Your task to perform on an android device: Go to Google Image 0: 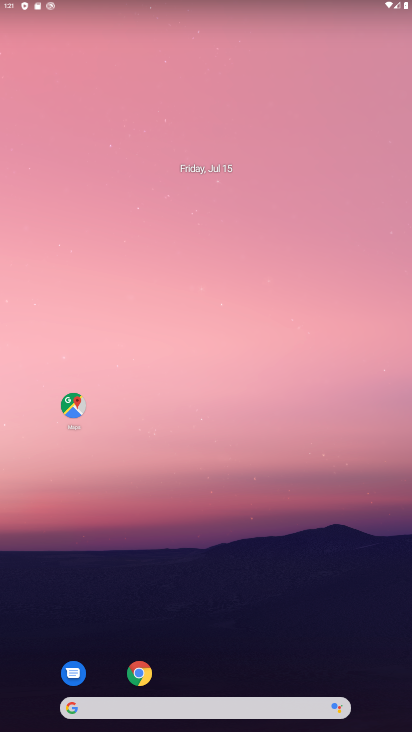
Step 0: drag from (265, 675) to (261, 182)
Your task to perform on an android device: Go to Google Image 1: 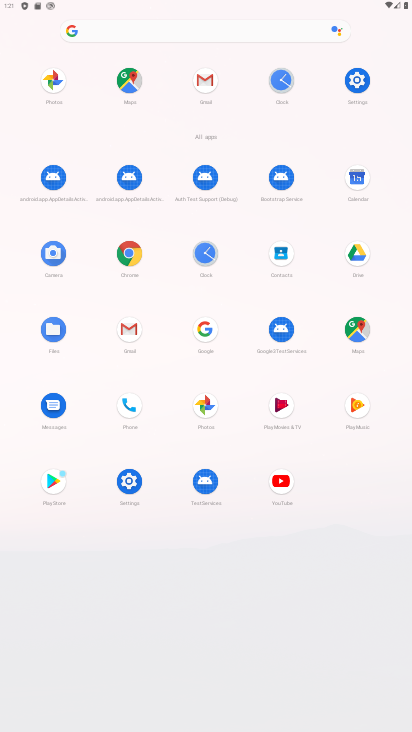
Step 1: click (204, 327)
Your task to perform on an android device: Go to Google Image 2: 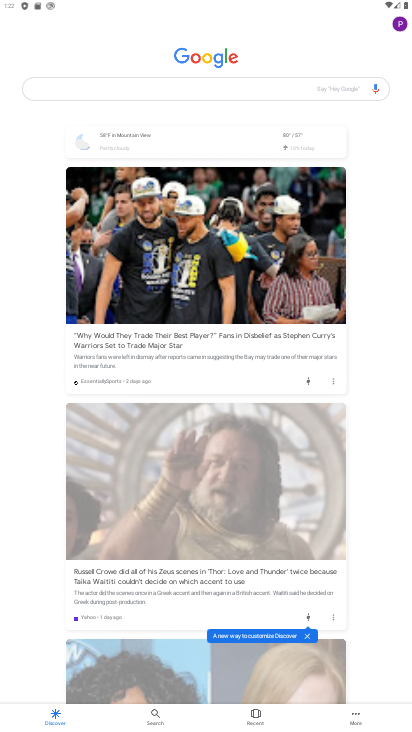
Step 2: task complete